Your task to perform on an android device: Open Chrome and go to settings Image 0: 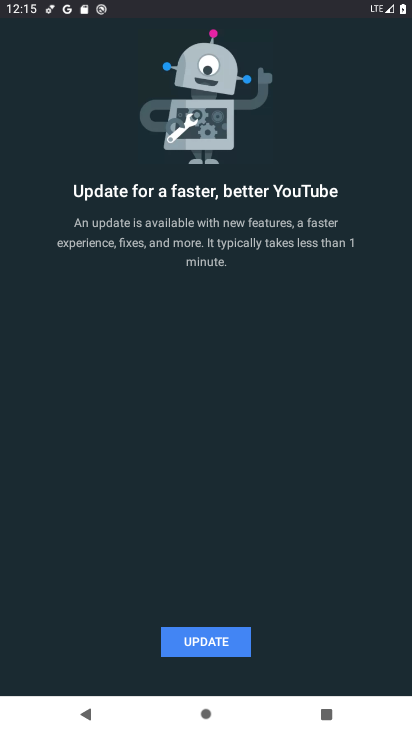
Step 0: press home button
Your task to perform on an android device: Open Chrome and go to settings Image 1: 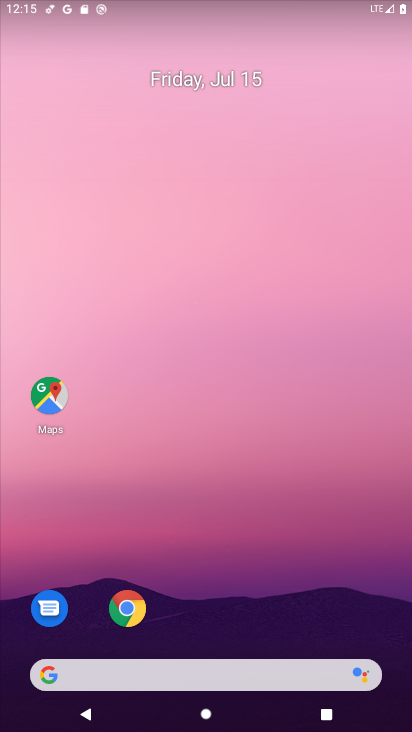
Step 1: click (129, 615)
Your task to perform on an android device: Open Chrome and go to settings Image 2: 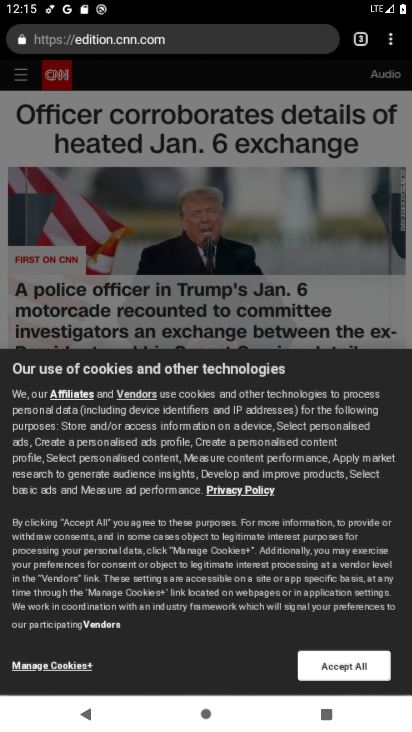
Step 2: click (389, 39)
Your task to perform on an android device: Open Chrome and go to settings Image 3: 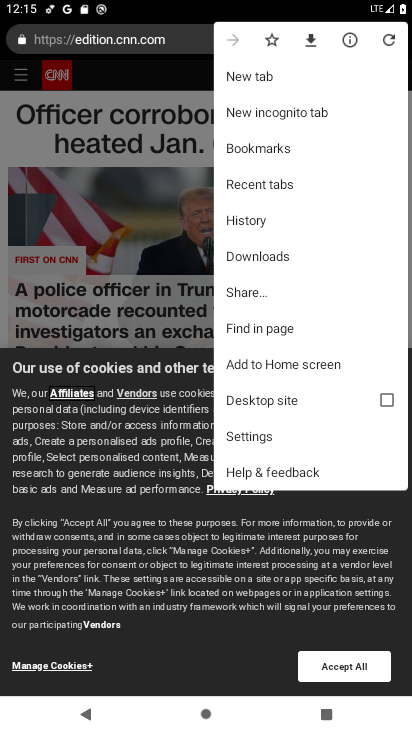
Step 3: click (249, 430)
Your task to perform on an android device: Open Chrome and go to settings Image 4: 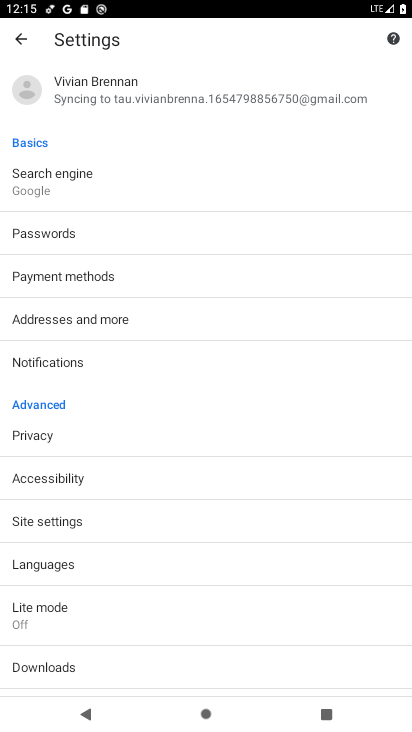
Step 4: task complete